Your task to perform on an android device: turn on priority inbox in the gmail app Image 0: 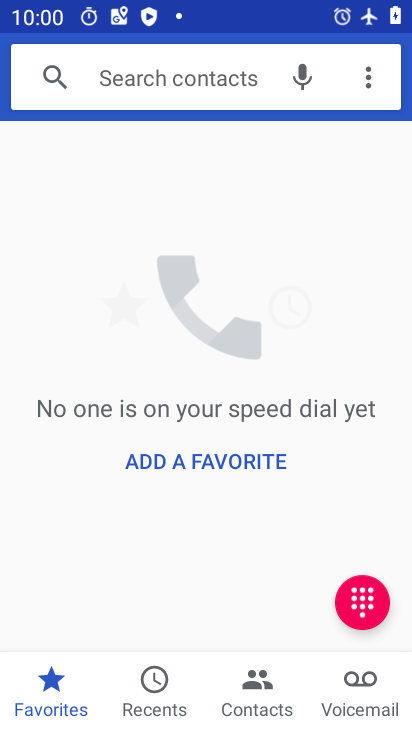
Step 0: press home button
Your task to perform on an android device: turn on priority inbox in the gmail app Image 1: 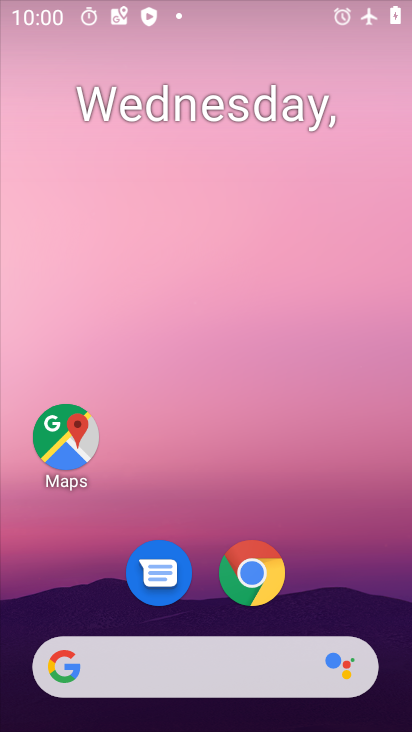
Step 1: drag from (293, 552) to (321, 121)
Your task to perform on an android device: turn on priority inbox in the gmail app Image 2: 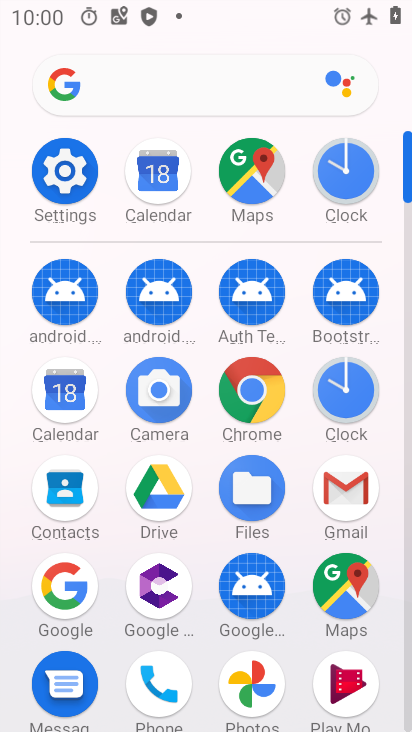
Step 2: click (347, 491)
Your task to perform on an android device: turn on priority inbox in the gmail app Image 3: 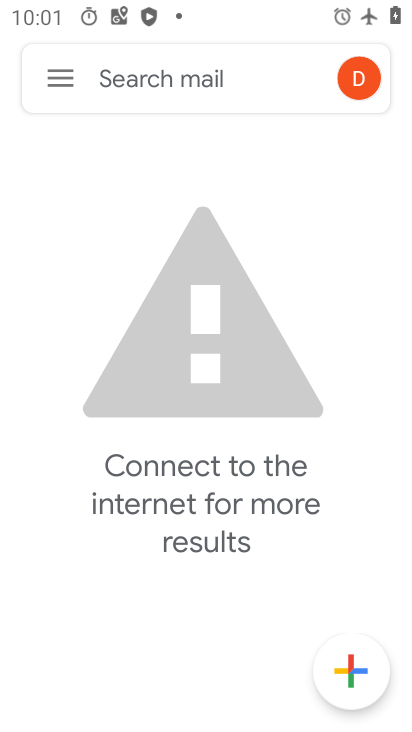
Step 3: click (60, 74)
Your task to perform on an android device: turn on priority inbox in the gmail app Image 4: 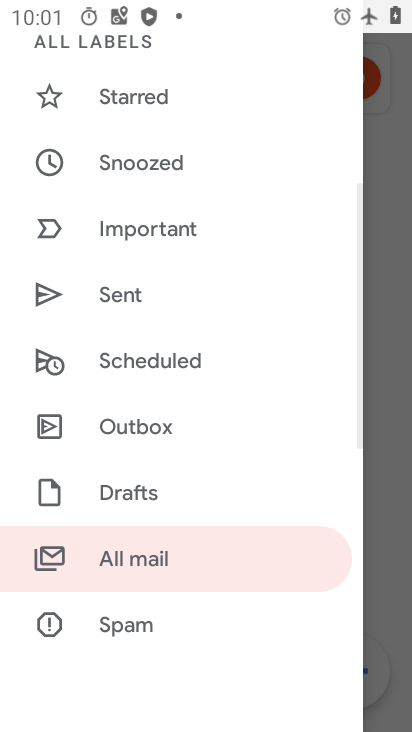
Step 4: drag from (168, 539) to (164, 354)
Your task to perform on an android device: turn on priority inbox in the gmail app Image 5: 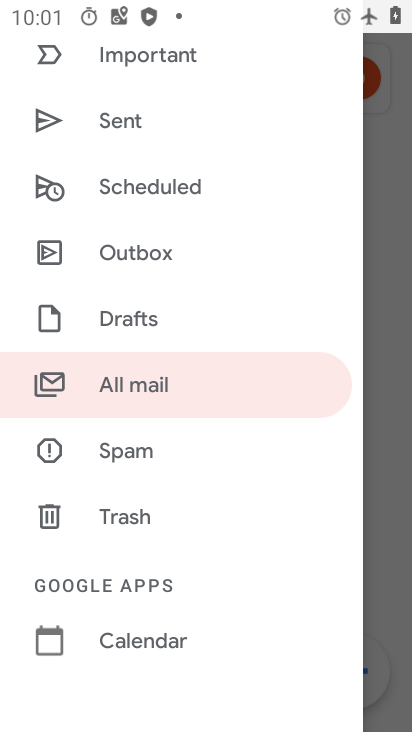
Step 5: drag from (127, 636) to (145, 452)
Your task to perform on an android device: turn on priority inbox in the gmail app Image 6: 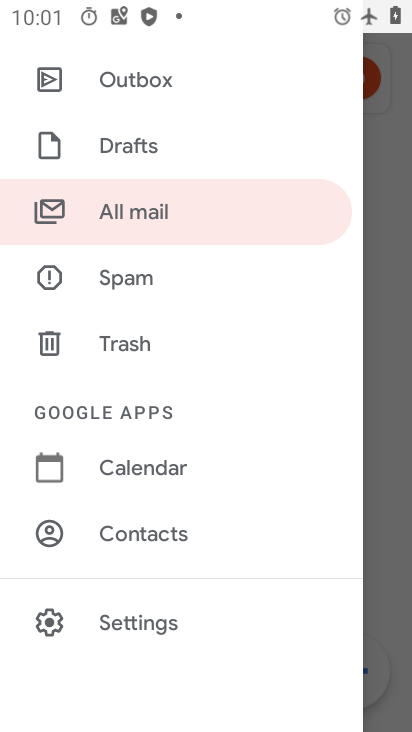
Step 6: click (176, 617)
Your task to perform on an android device: turn on priority inbox in the gmail app Image 7: 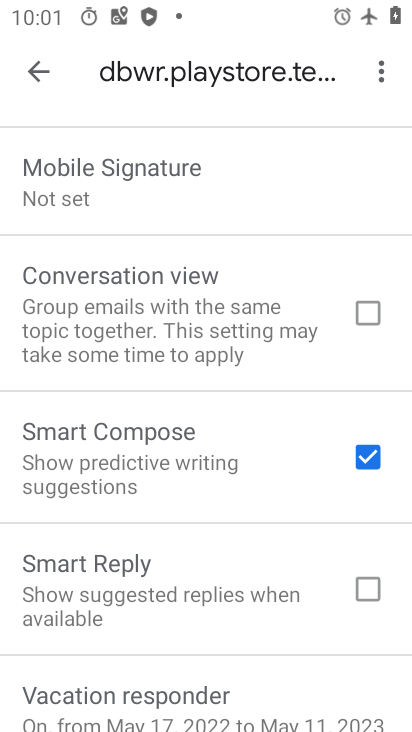
Step 7: task complete